Your task to perform on an android device: change notification settings in the gmail app Image 0: 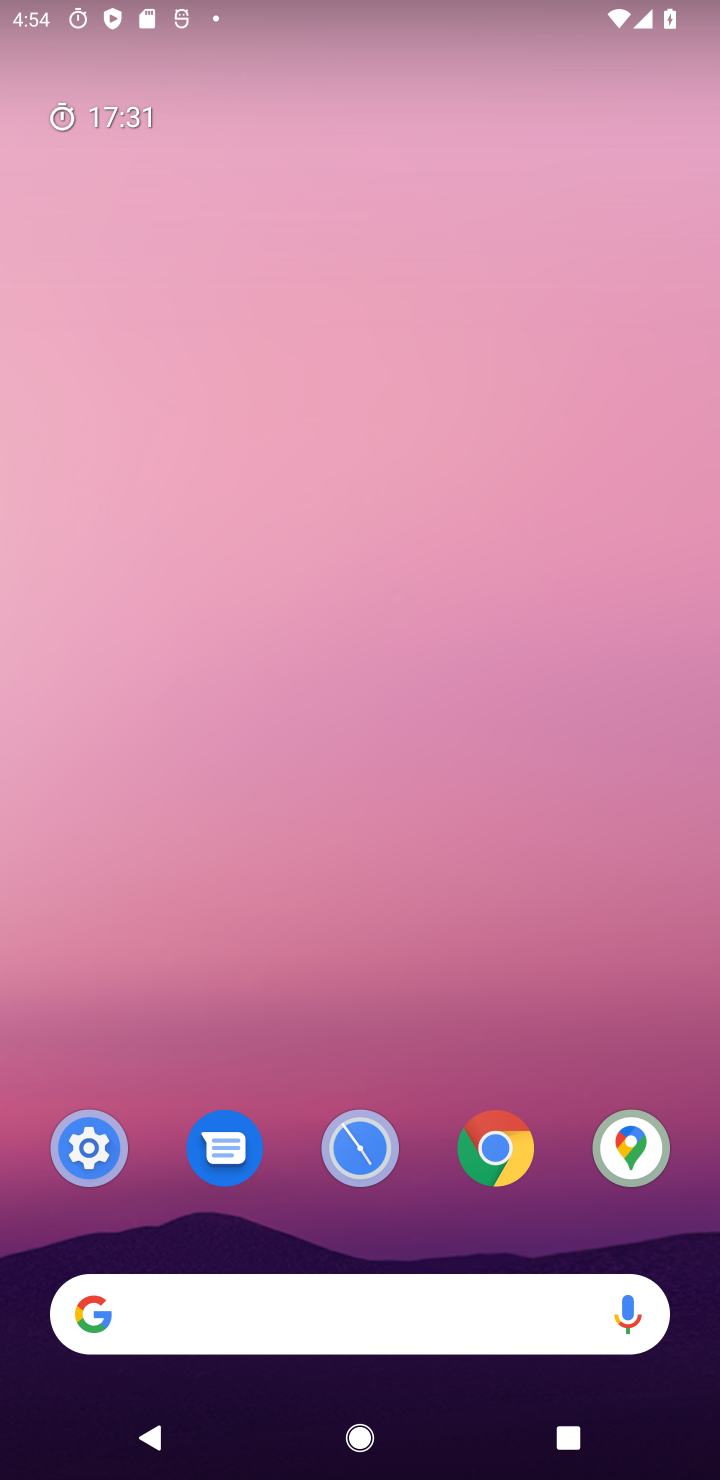
Step 0: drag from (301, 471) to (355, 4)
Your task to perform on an android device: change notification settings in the gmail app Image 1: 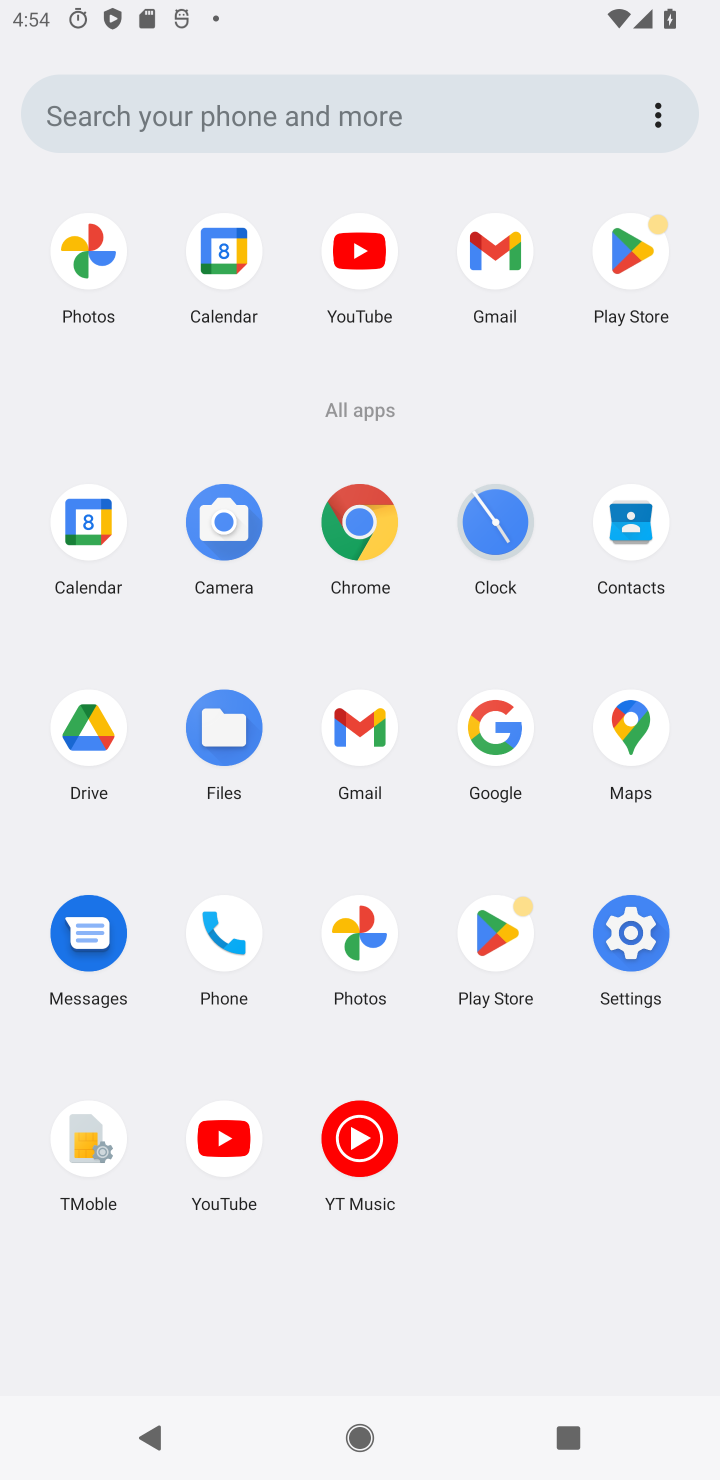
Step 1: click (475, 241)
Your task to perform on an android device: change notification settings in the gmail app Image 2: 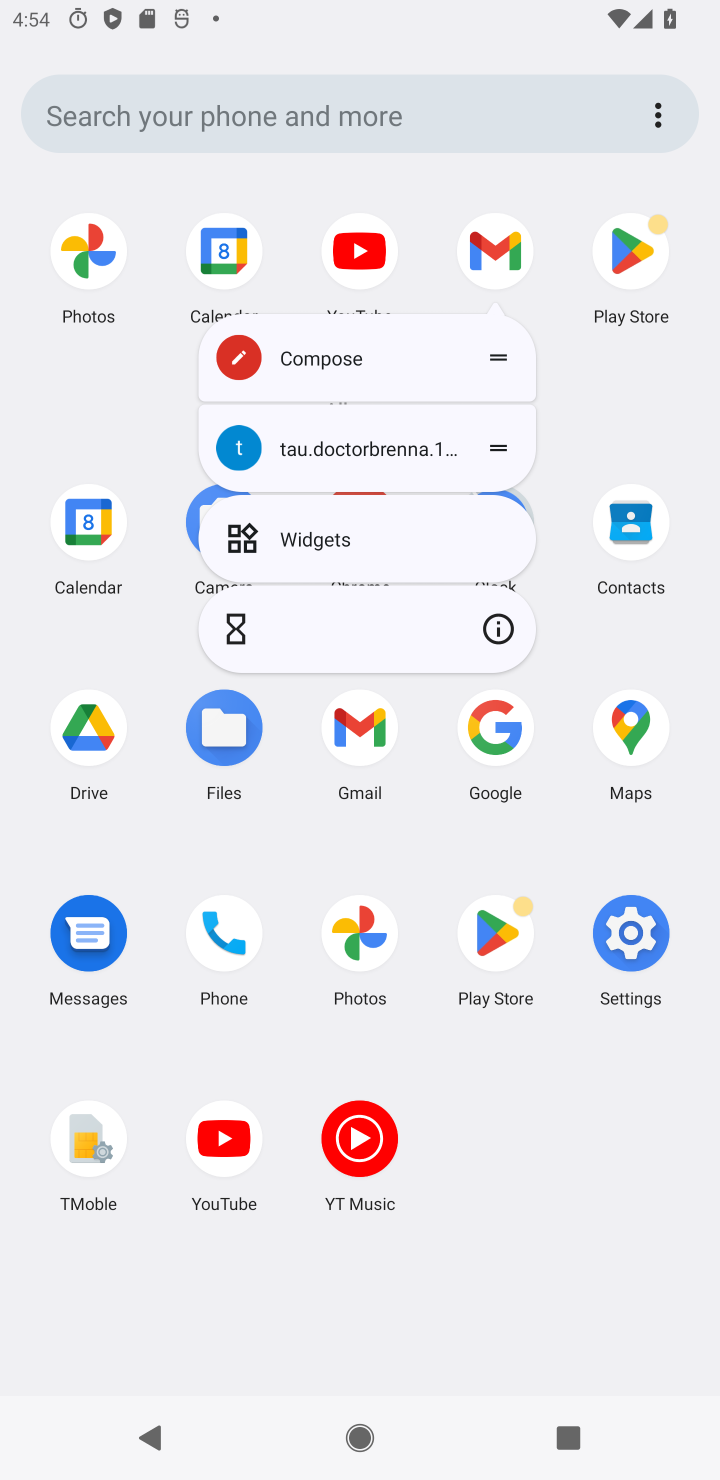
Step 2: click (475, 241)
Your task to perform on an android device: change notification settings in the gmail app Image 3: 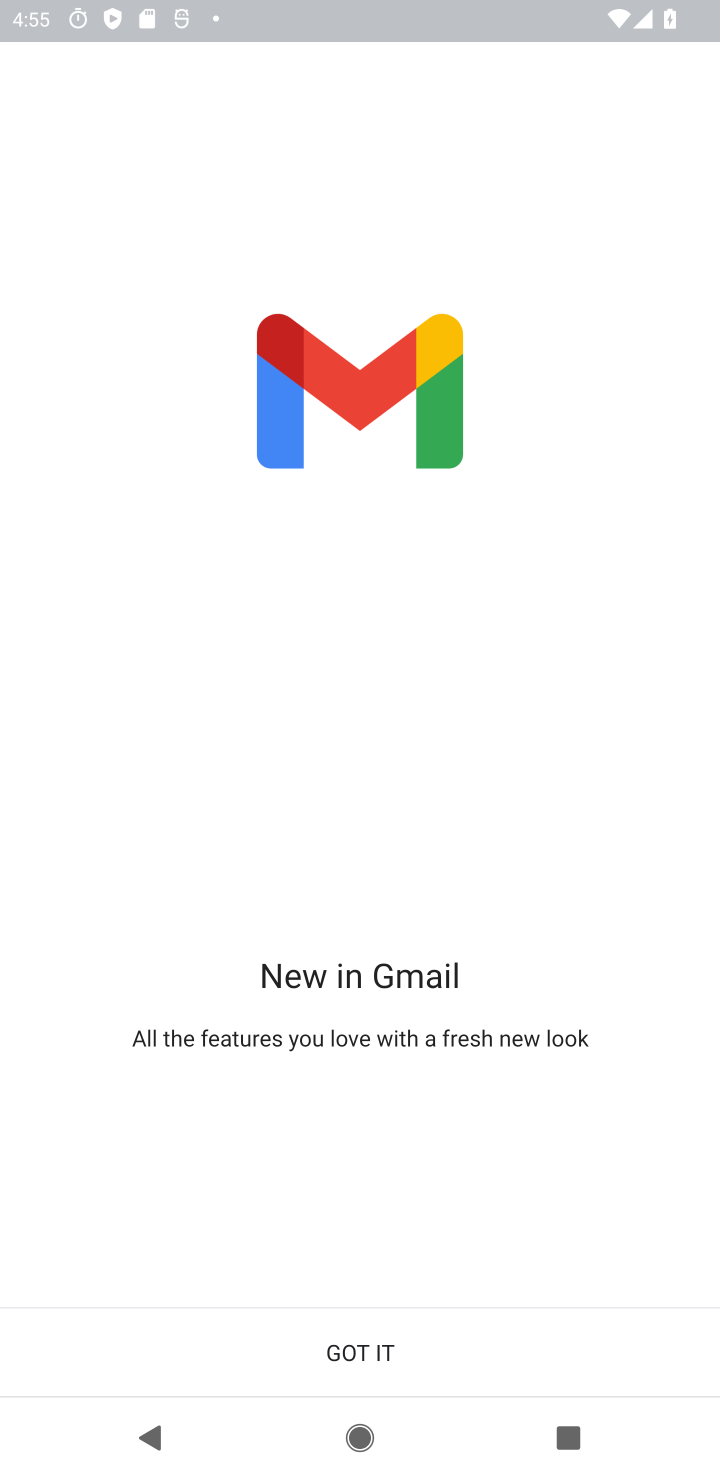
Step 3: click (412, 1353)
Your task to perform on an android device: change notification settings in the gmail app Image 4: 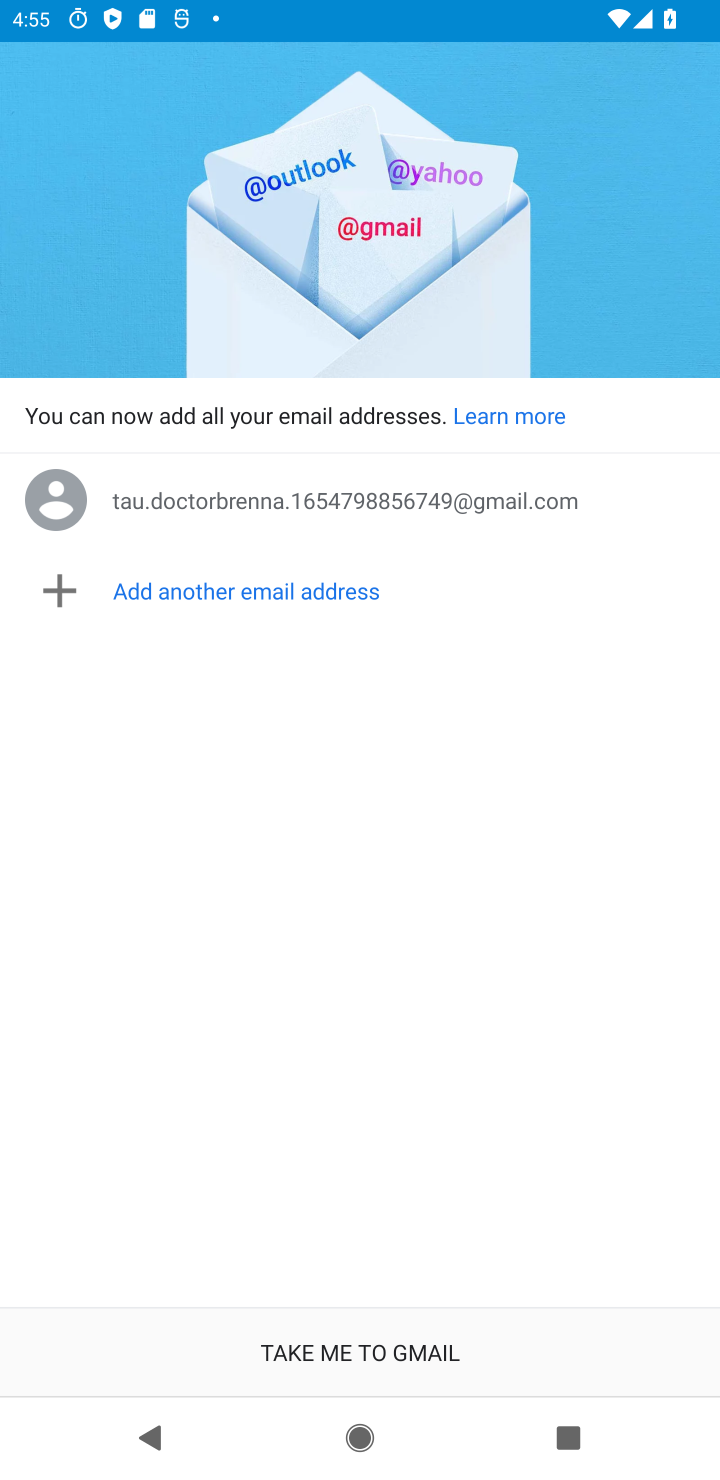
Step 4: click (412, 1353)
Your task to perform on an android device: change notification settings in the gmail app Image 5: 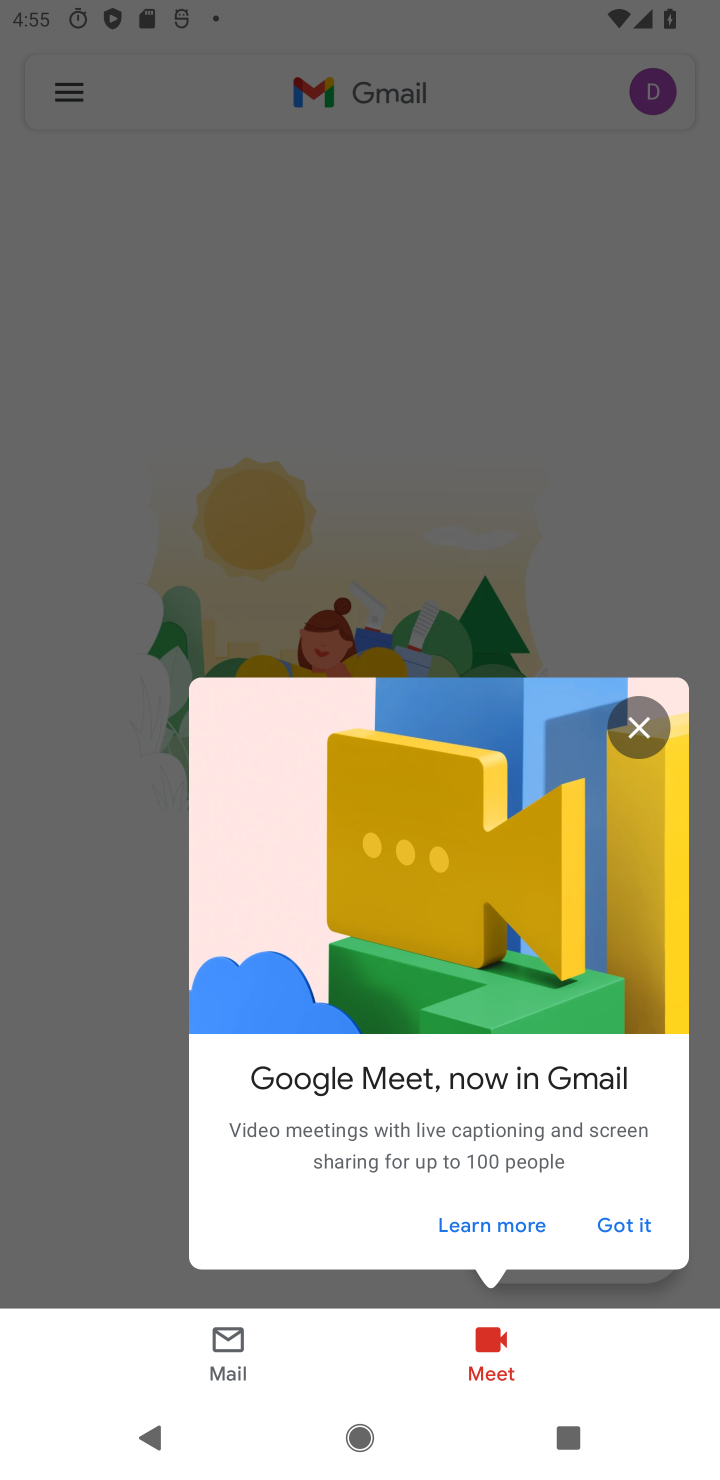
Step 5: click (634, 717)
Your task to perform on an android device: change notification settings in the gmail app Image 6: 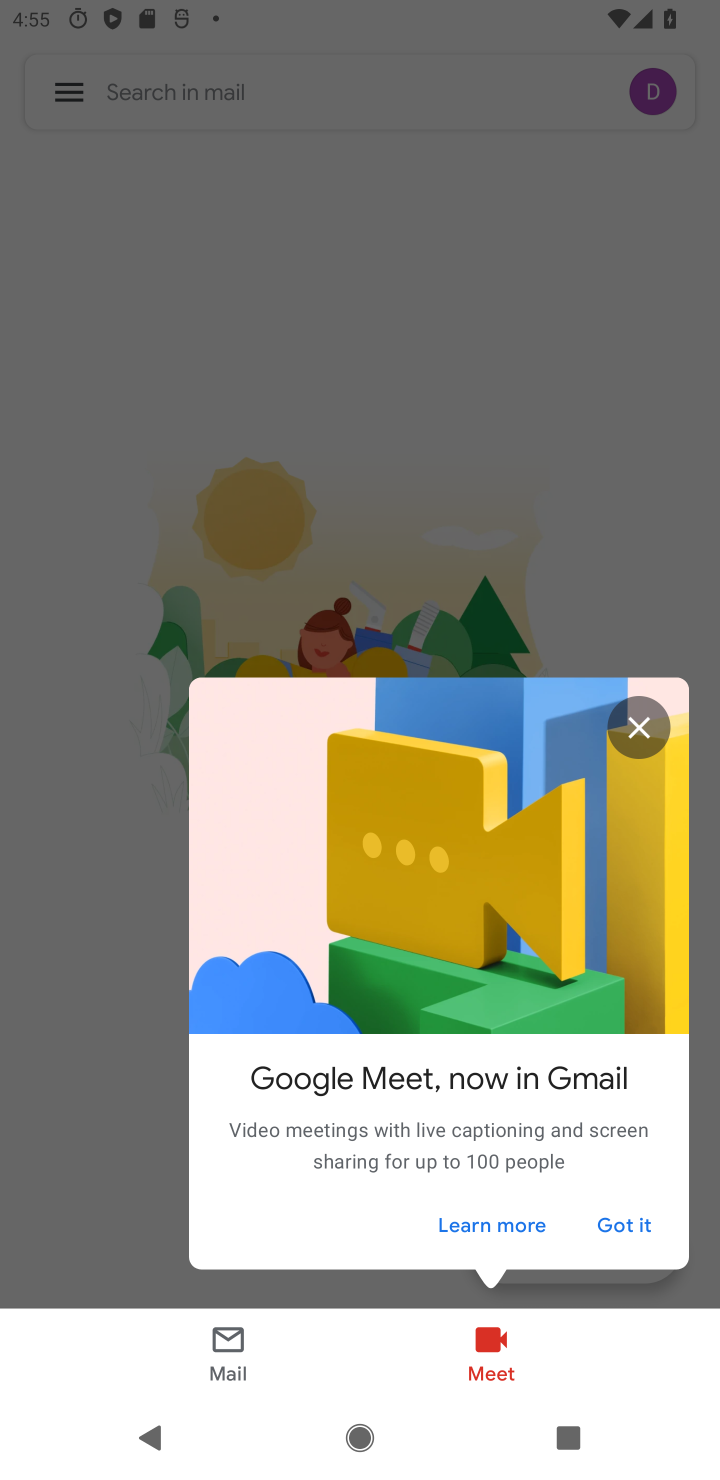
Step 6: click (60, 99)
Your task to perform on an android device: change notification settings in the gmail app Image 7: 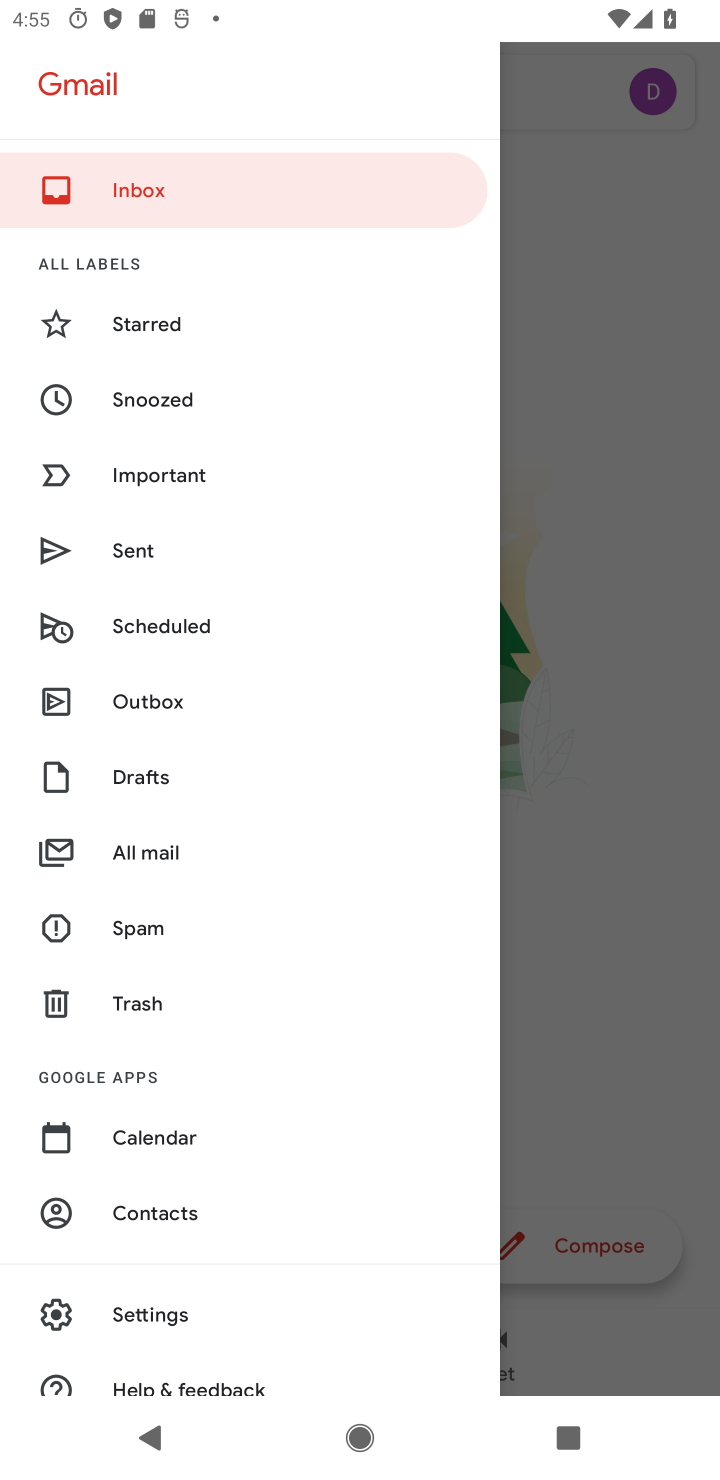
Step 7: drag from (185, 1191) to (190, 403)
Your task to perform on an android device: change notification settings in the gmail app Image 8: 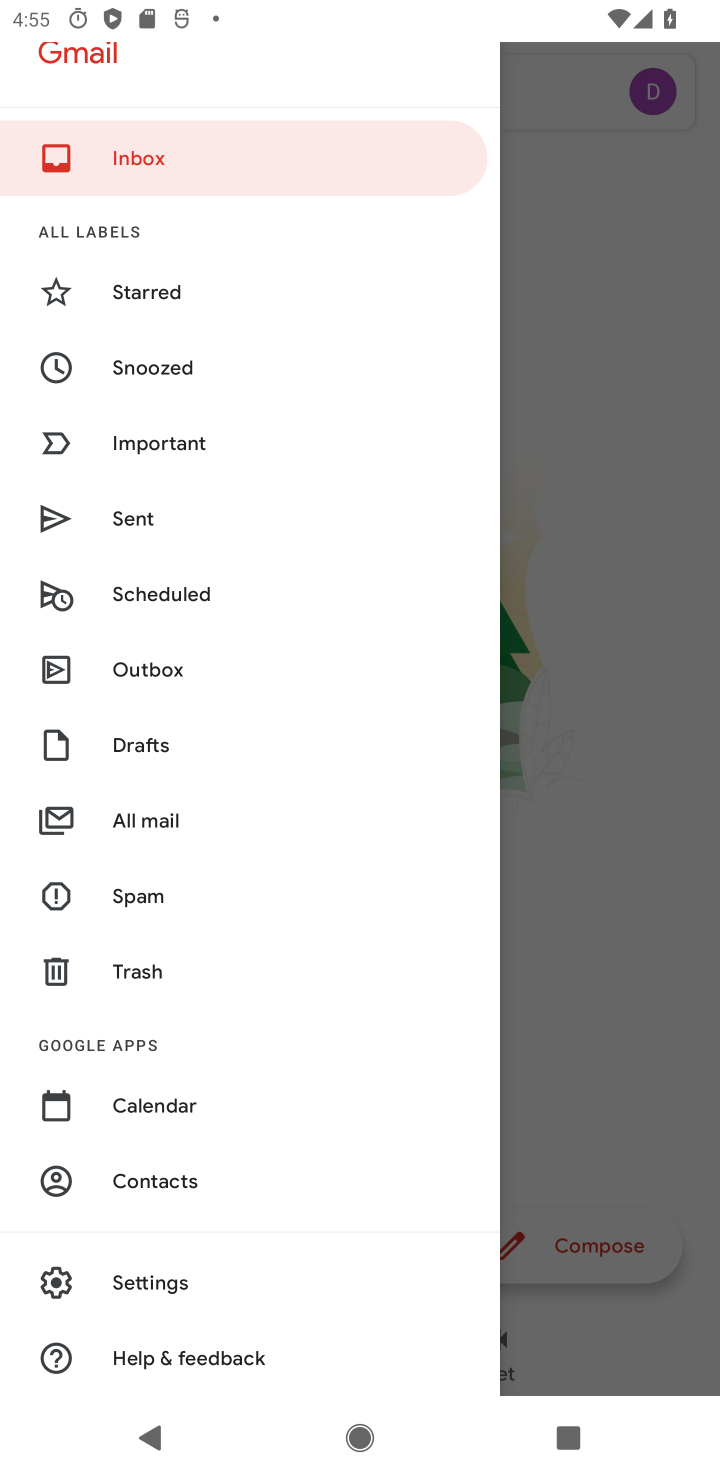
Step 8: click (163, 1292)
Your task to perform on an android device: change notification settings in the gmail app Image 9: 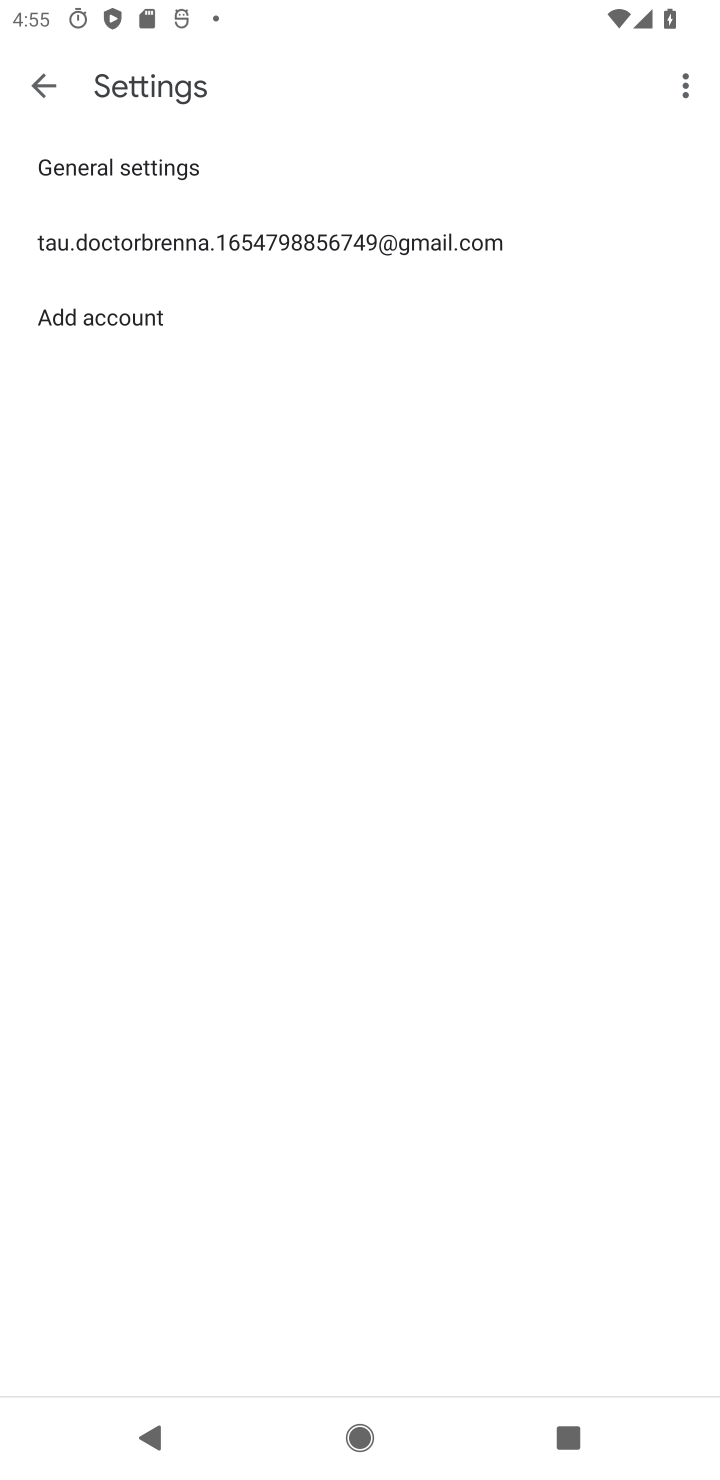
Step 9: click (140, 255)
Your task to perform on an android device: change notification settings in the gmail app Image 10: 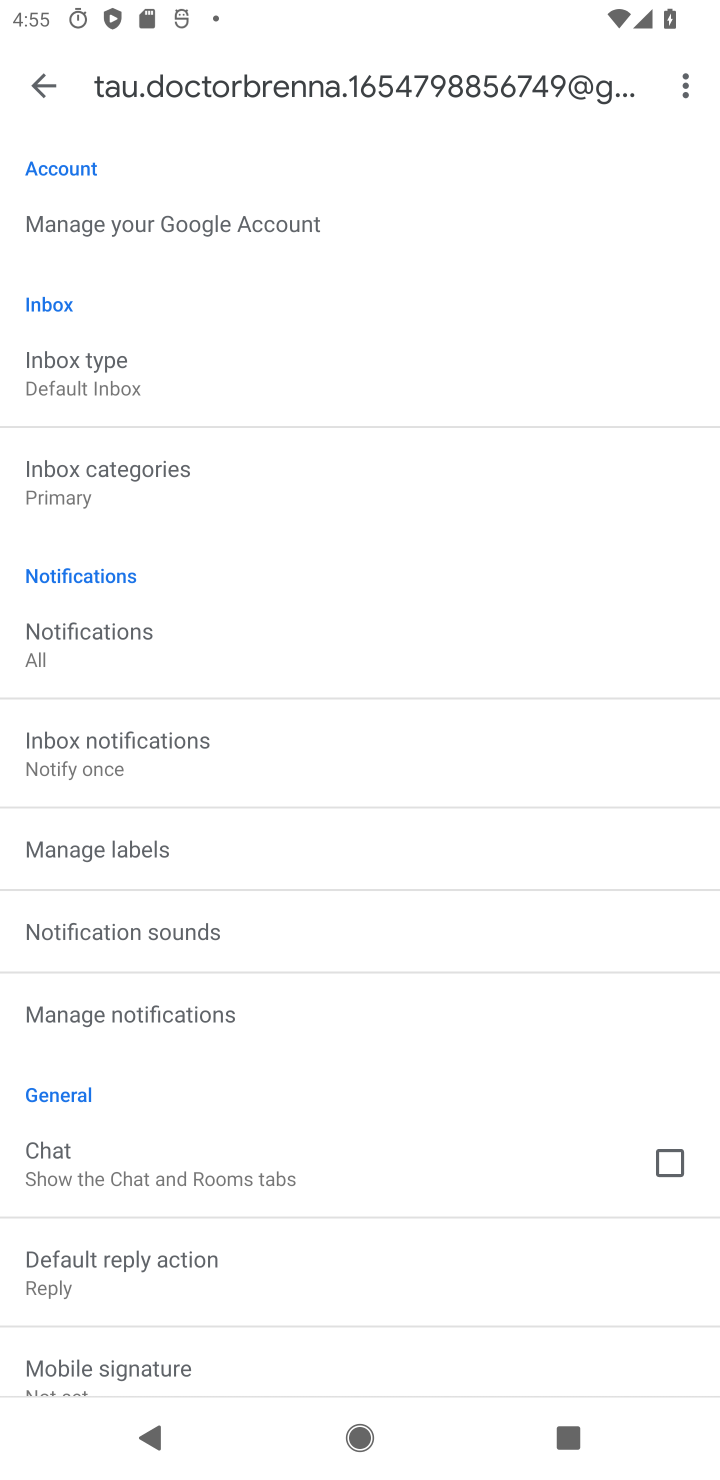
Step 10: click (64, 638)
Your task to perform on an android device: change notification settings in the gmail app Image 11: 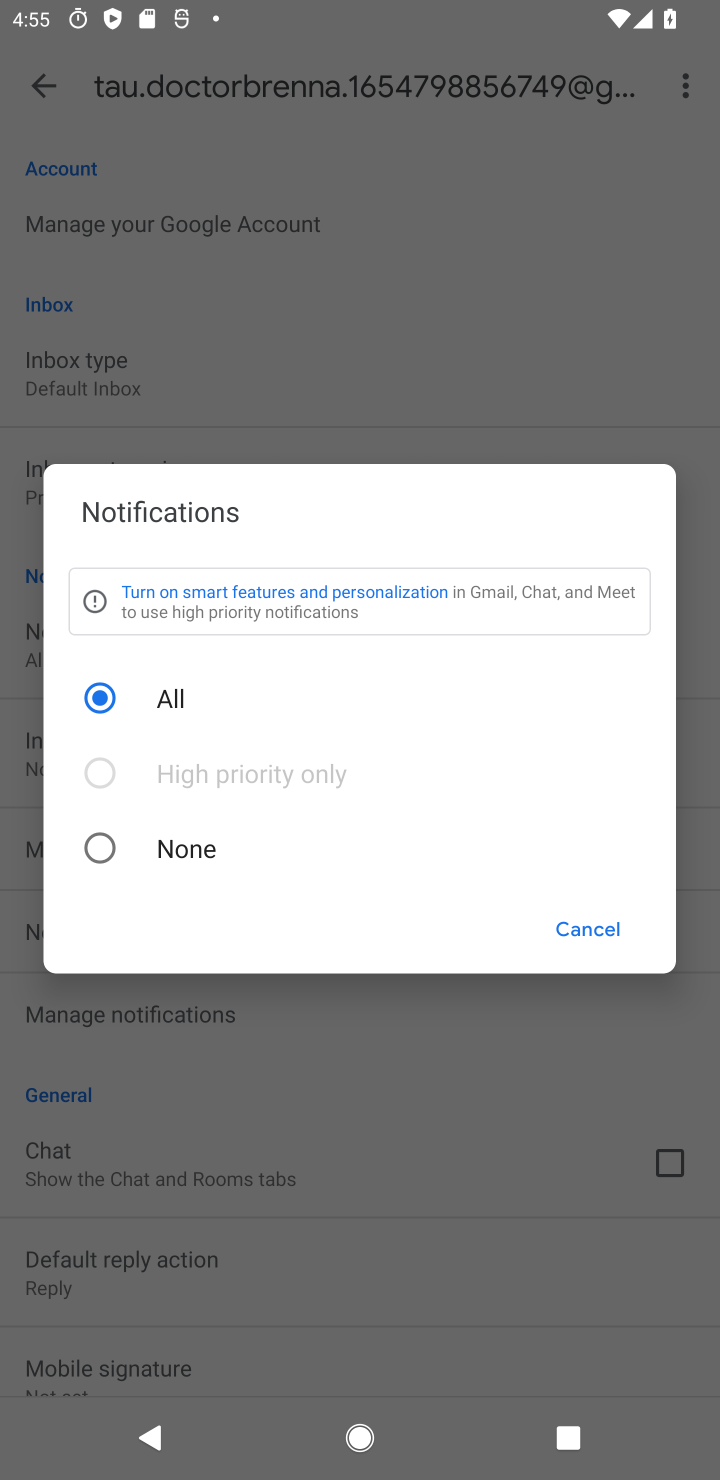
Step 11: click (183, 866)
Your task to perform on an android device: change notification settings in the gmail app Image 12: 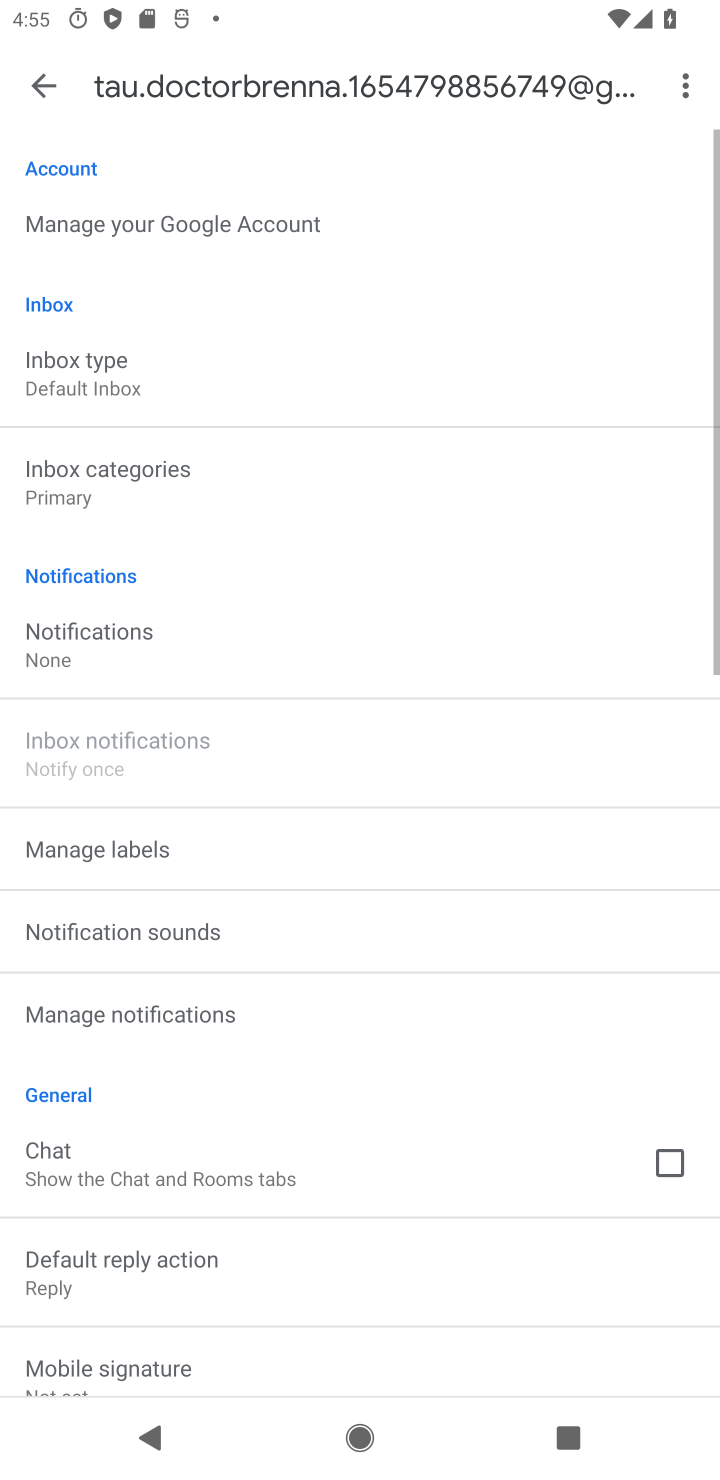
Step 12: task complete